Your task to perform on an android device: change timer sound Image 0: 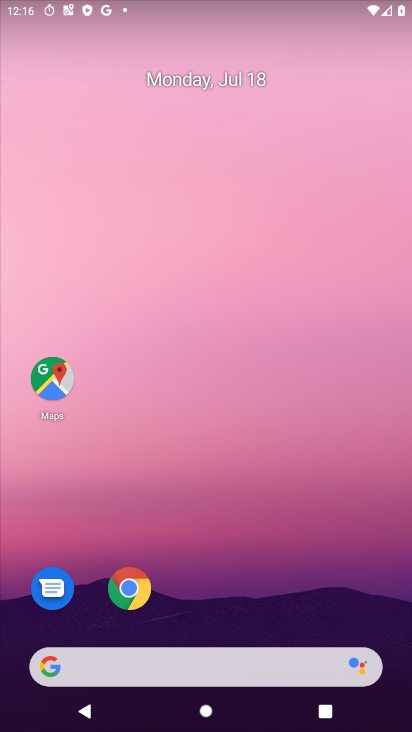
Step 0: drag from (262, 606) to (230, 243)
Your task to perform on an android device: change timer sound Image 1: 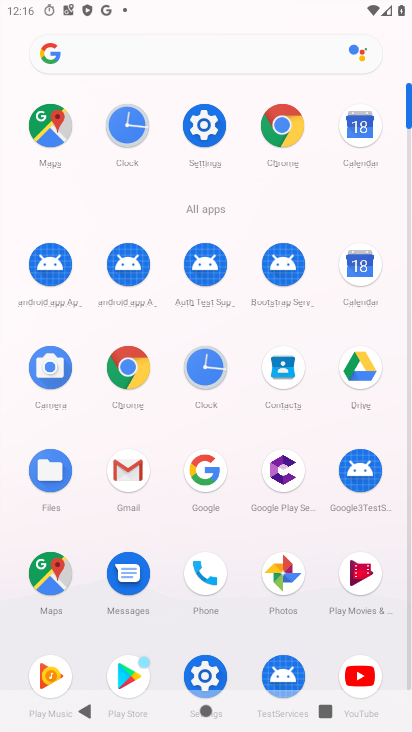
Step 1: click (124, 121)
Your task to perform on an android device: change timer sound Image 2: 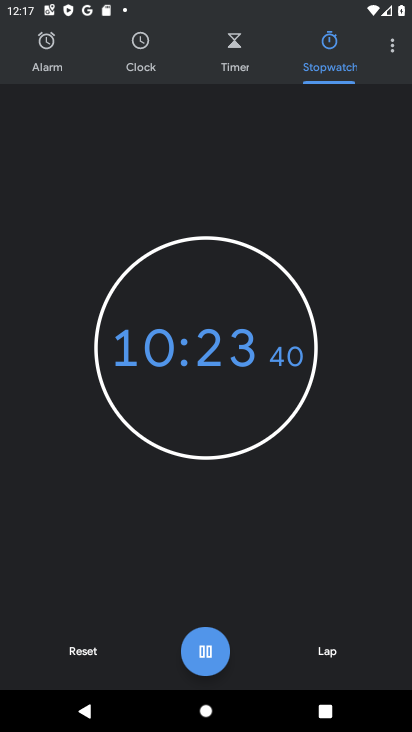
Step 2: click (379, 51)
Your task to perform on an android device: change timer sound Image 3: 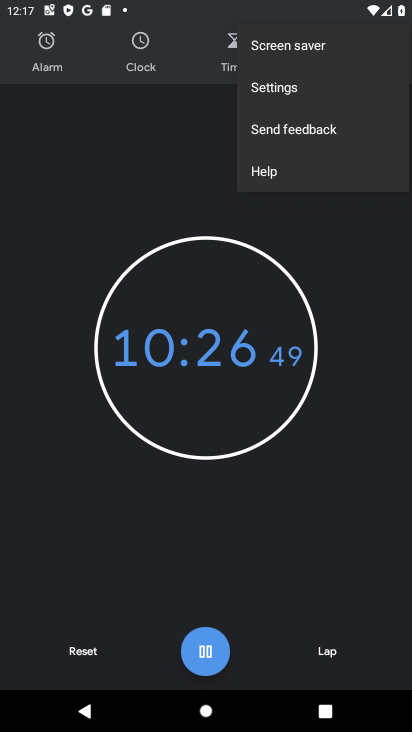
Step 3: click (310, 80)
Your task to perform on an android device: change timer sound Image 4: 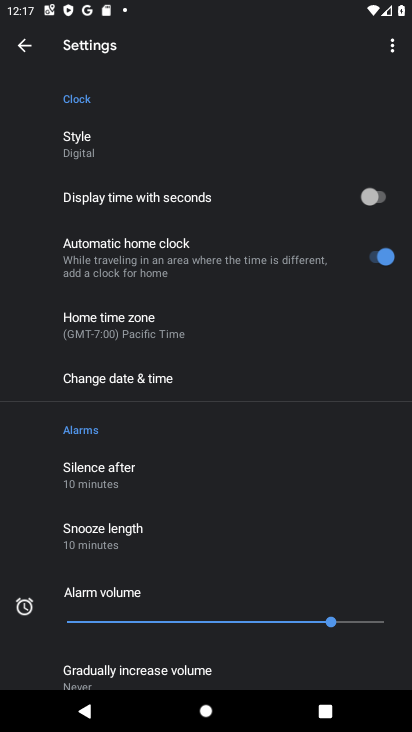
Step 4: drag from (130, 661) to (91, 130)
Your task to perform on an android device: change timer sound Image 5: 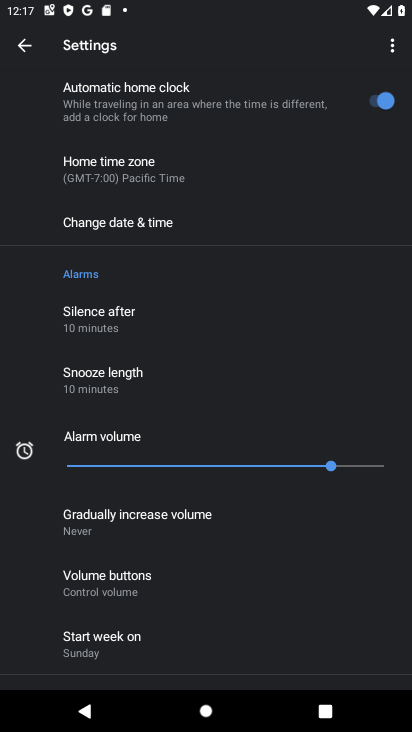
Step 5: drag from (111, 614) to (109, 438)
Your task to perform on an android device: change timer sound Image 6: 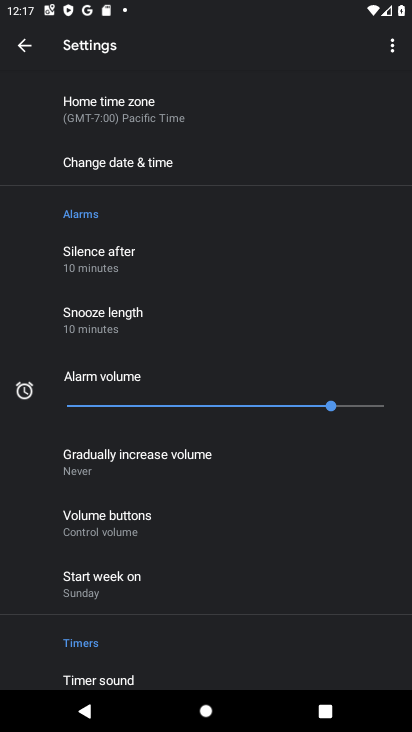
Step 6: click (115, 675)
Your task to perform on an android device: change timer sound Image 7: 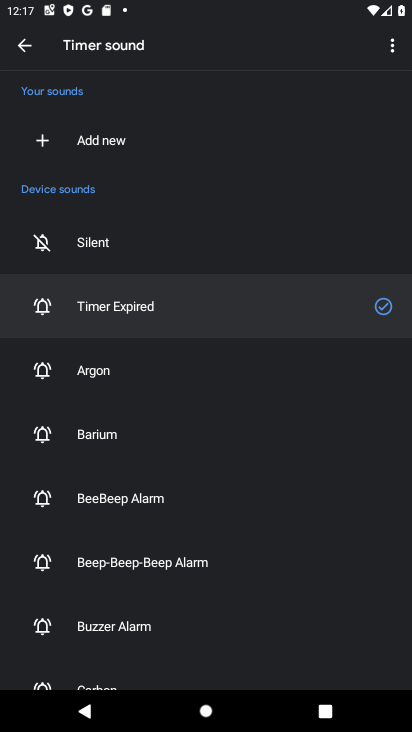
Step 7: click (110, 495)
Your task to perform on an android device: change timer sound Image 8: 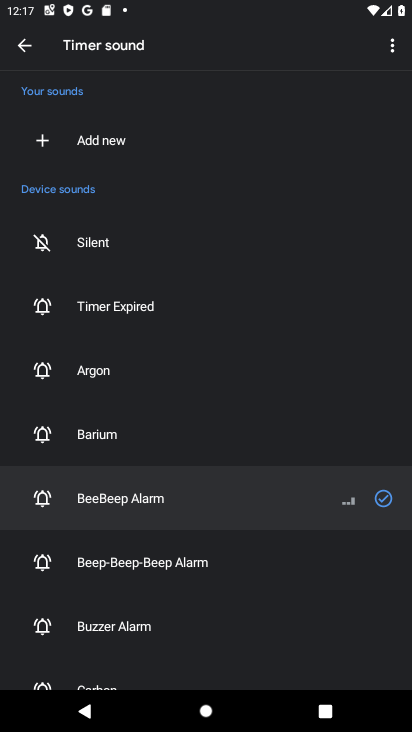
Step 8: task complete